Your task to perform on an android device: search for starred emails in the gmail app Image 0: 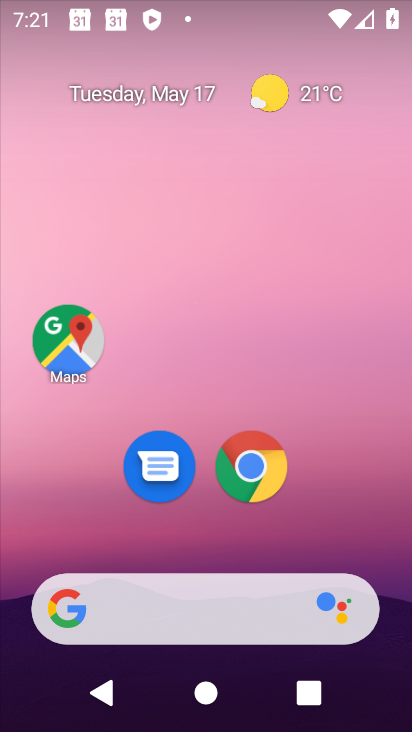
Step 0: drag from (130, 620) to (339, 159)
Your task to perform on an android device: search for starred emails in the gmail app Image 1: 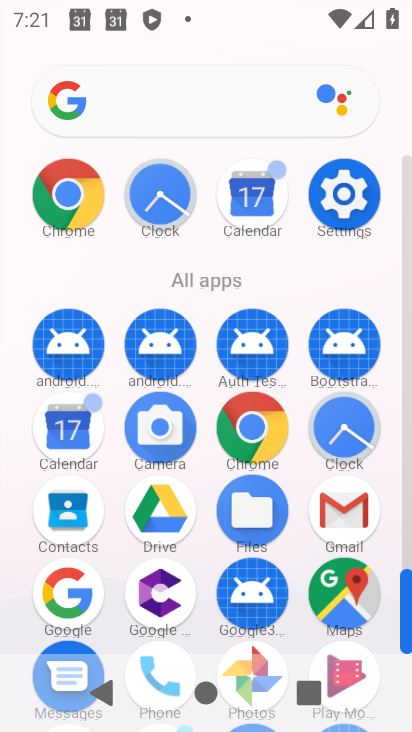
Step 1: click (341, 512)
Your task to perform on an android device: search for starred emails in the gmail app Image 2: 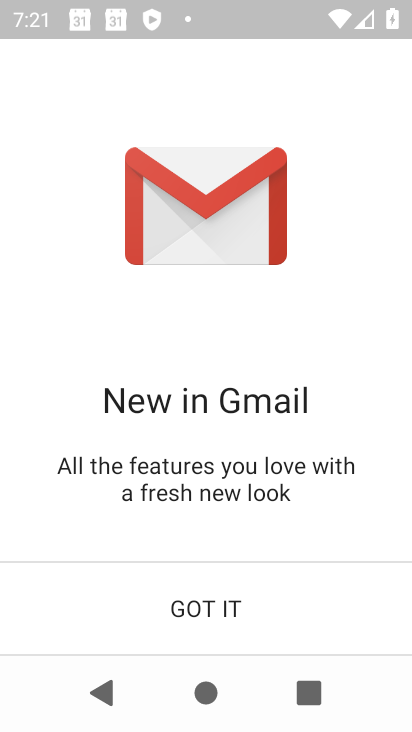
Step 2: click (221, 617)
Your task to perform on an android device: search for starred emails in the gmail app Image 3: 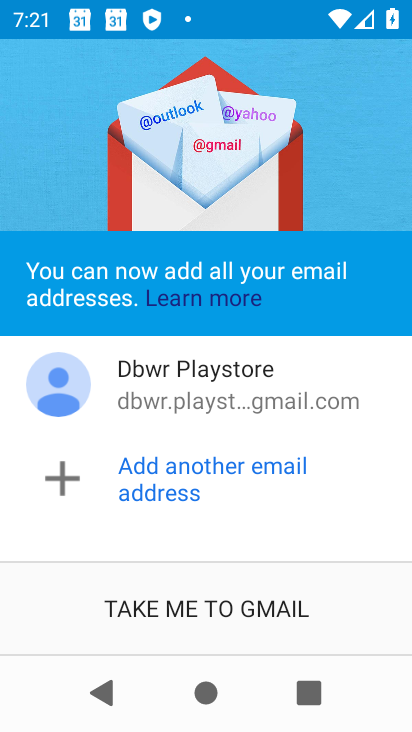
Step 3: click (224, 615)
Your task to perform on an android device: search for starred emails in the gmail app Image 4: 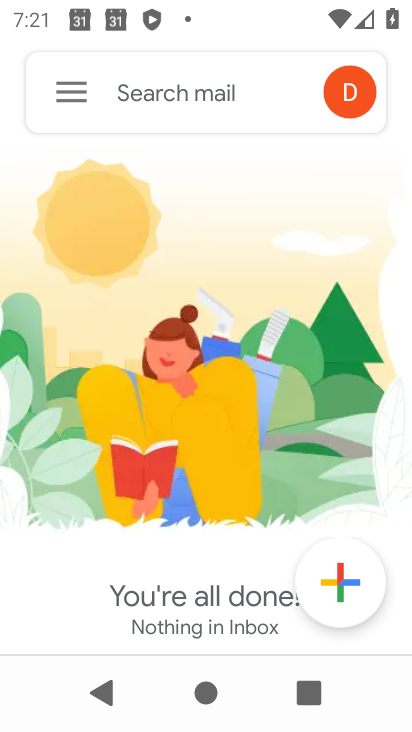
Step 4: click (73, 91)
Your task to perform on an android device: search for starred emails in the gmail app Image 5: 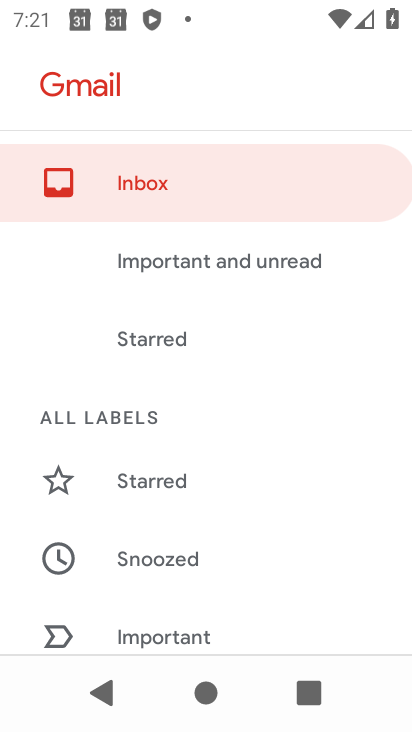
Step 5: click (164, 488)
Your task to perform on an android device: search for starred emails in the gmail app Image 6: 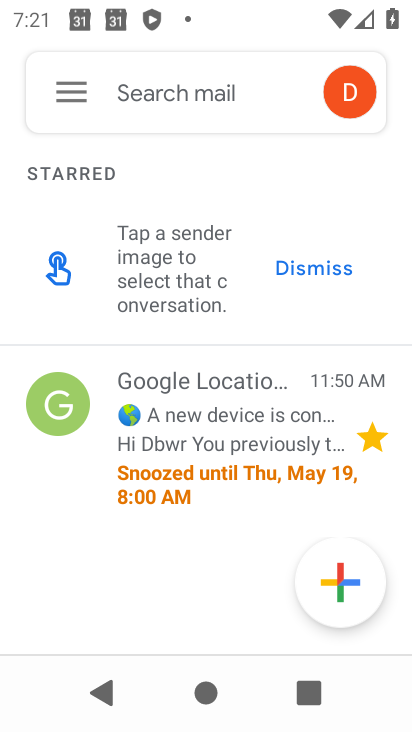
Step 6: task complete